Your task to perform on an android device: Open maps Image 0: 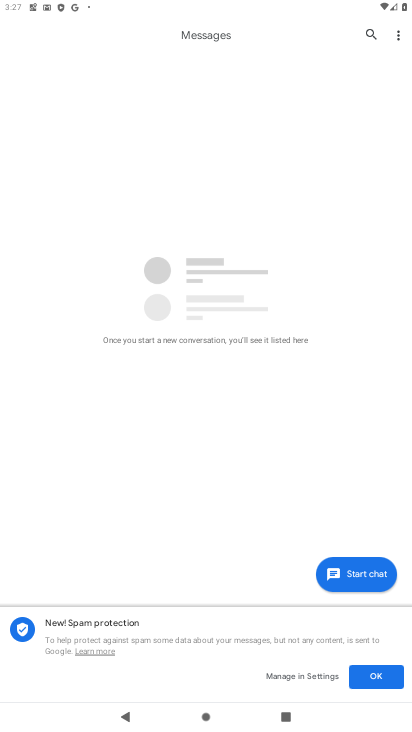
Step 0: press home button
Your task to perform on an android device: Open maps Image 1: 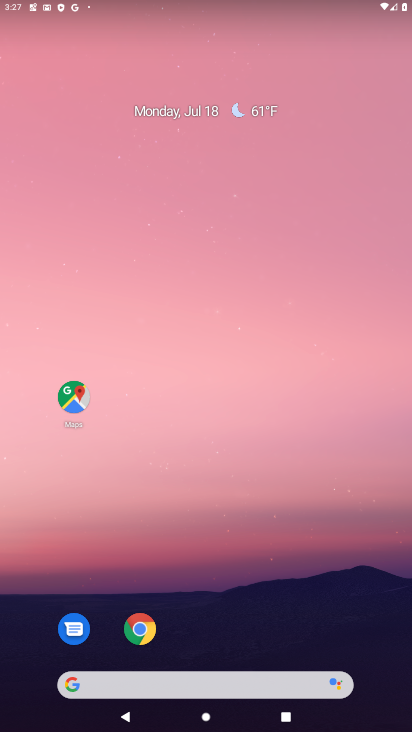
Step 1: drag from (155, 681) to (112, 174)
Your task to perform on an android device: Open maps Image 2: 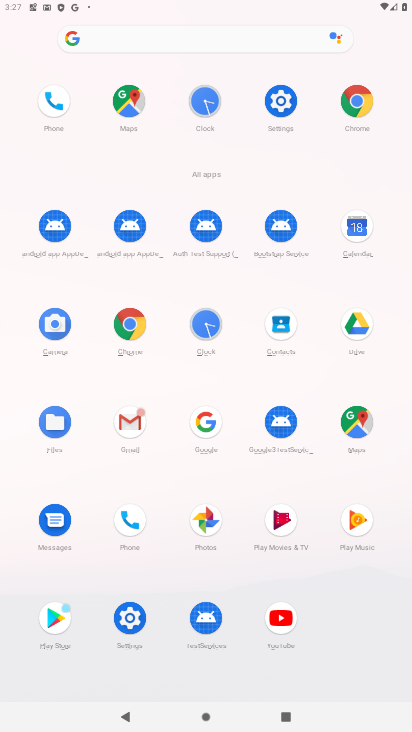
Step 2: click (336, 424)
Your task to perform on an android device: Open maps Image 3: 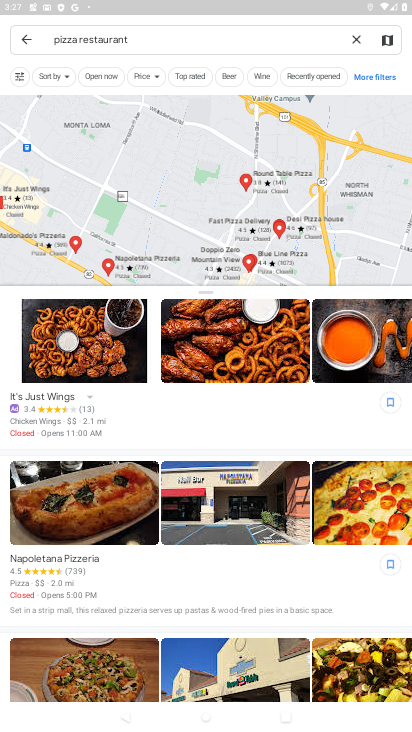
Step 3: click (26, 42)
Your task to perform on an android device: Open maps Image 4: 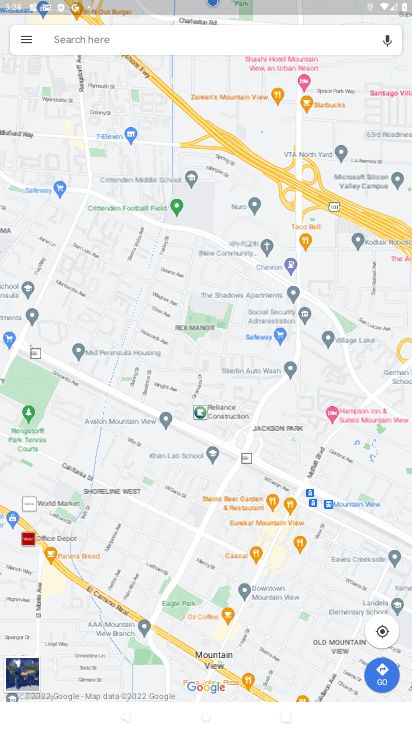
Step 4: task complete